Your task to perform on an android device: toggle pop-ups in chrome Image 0: 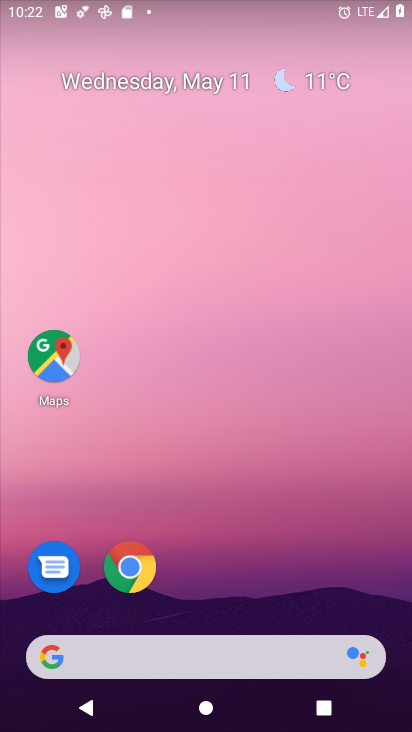
Step 0: click (130, 565)
Your task to perform on an android device: toggle pop-ups in chrome Image 1: 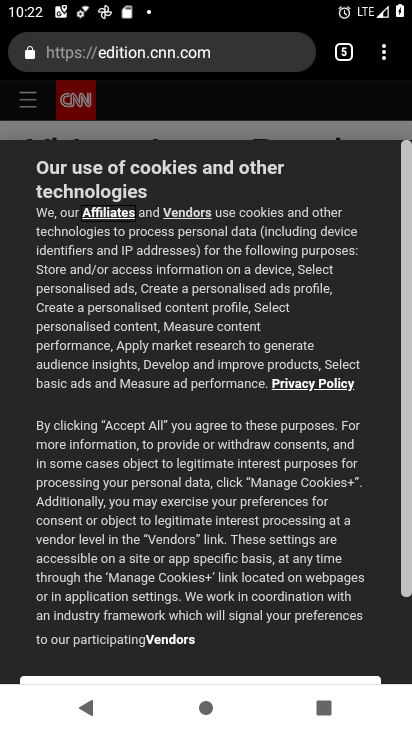
Step 1: click (384, 44)
Your task to perform on an android device: toggle pop-ups in chrome Image 2: 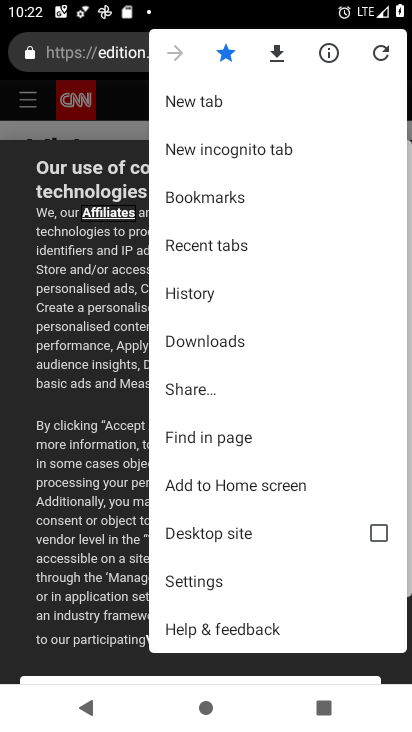
Step 2: click (225, 578)
Your task to perform on an android device: toggle pop-ups in chrome Image 3: 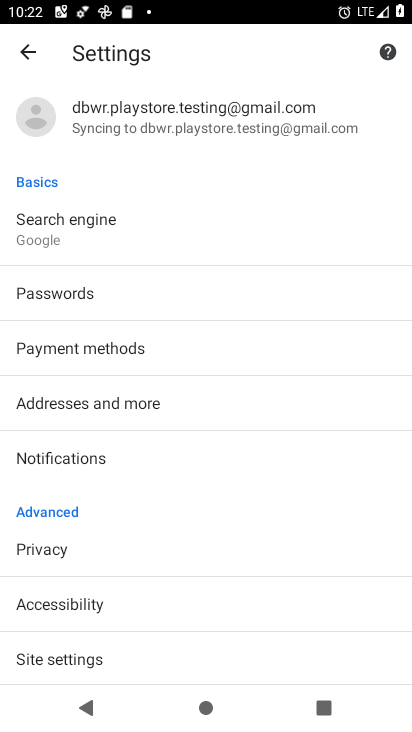
Step 3: drag from (140, 623) to (156, 296)
Your task to perform on an android device: toggle pop-ups in chrome Image 4: 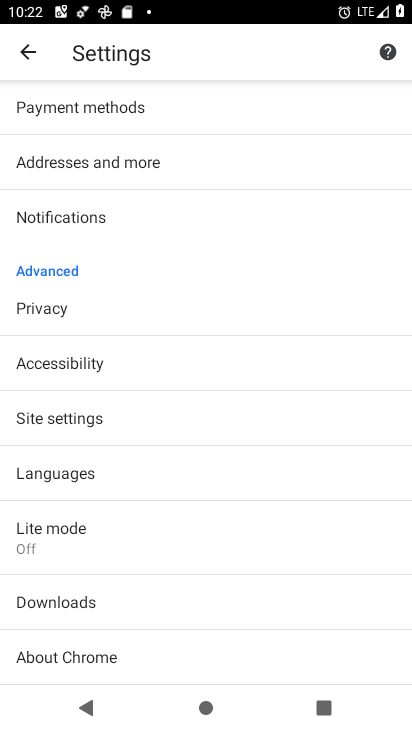
Step 4: click (92, 417)
Your task to perform on an android device: toggle pop-ups in chrome Image 5: 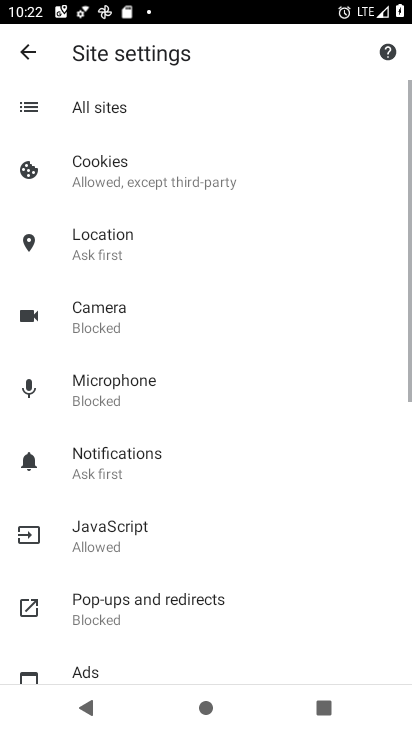
Step 5: click (173, 602)
Your task to perform on an android device: toggle pop-ups in chrome Image 6: 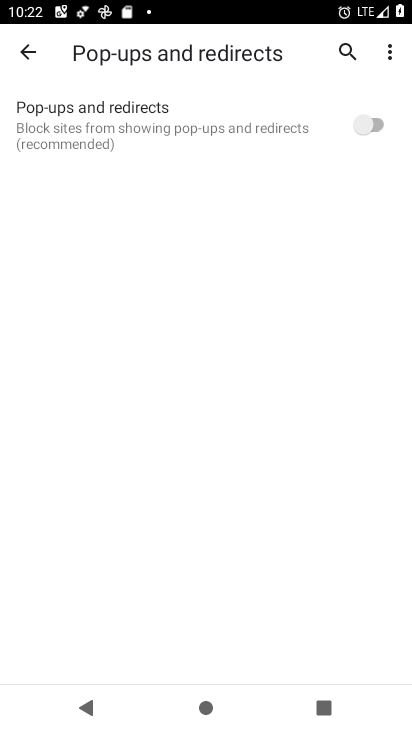
Step 6: click (362, 121)
Your task to perform on an android device: toggle pop-ups in chrome Image 7: 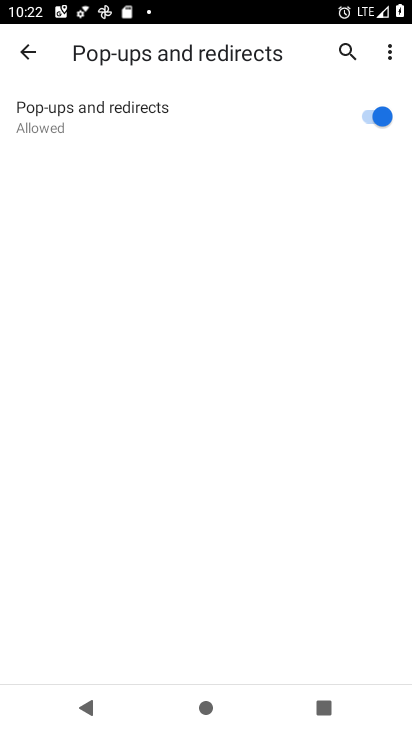
Step 7: task complete